Your task to perform on an android device: change the clock display to analog Image 0: 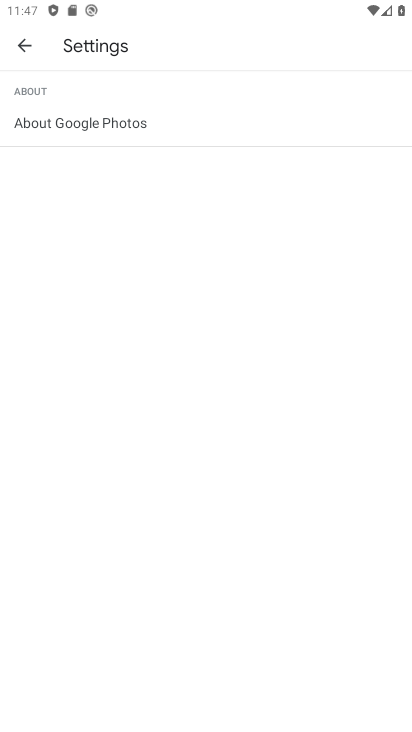
Step 0: press home button
Your task to perform on an android device: change the clock display to analog Image 1: 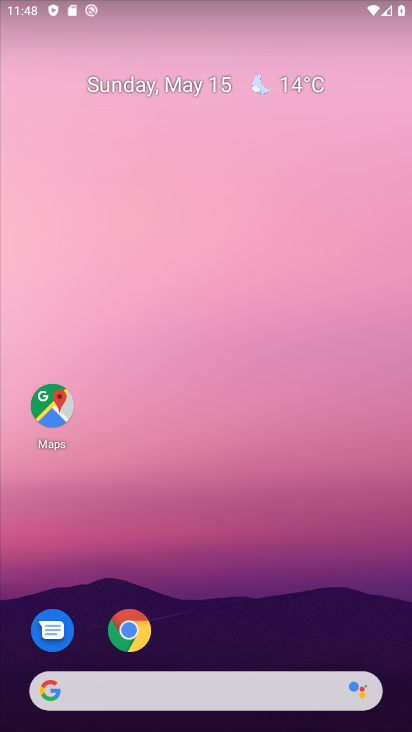
Step 1: drag from (233, 628) to (199, 166)
Your task to perform on an android device: change the clock display to analog Image 2: 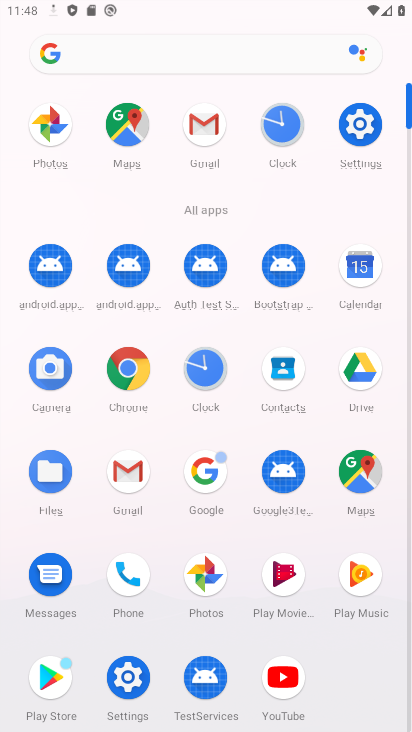
Step 2: click (280, 130)
Your task to perform on an android device: change the clock display to analog Image 3: 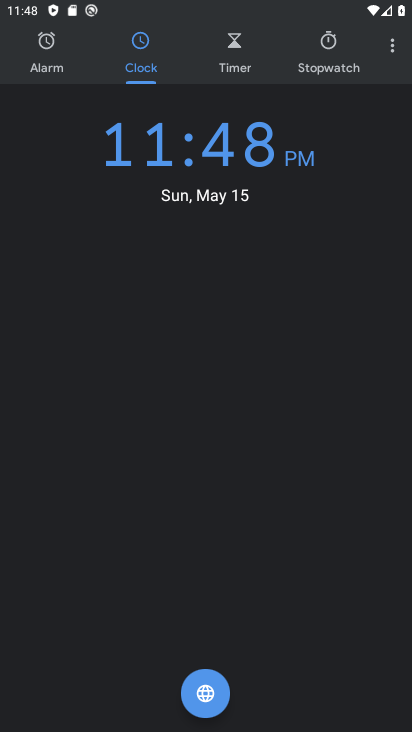
Step 3: click (385, 43)
Your task to perform on an android device: change the clock display to analog Image 4: 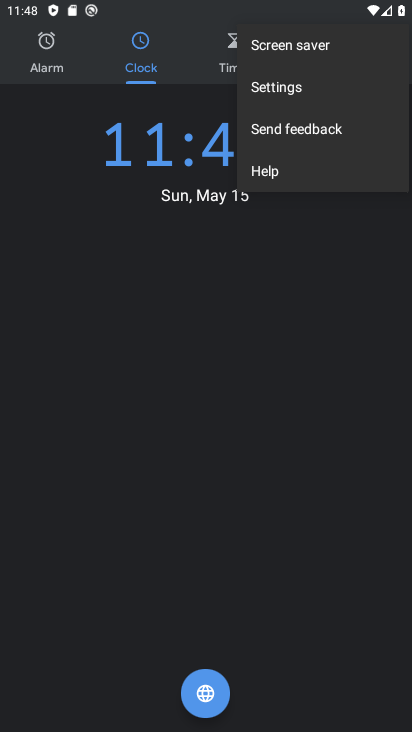
Step 4: click (323, 87)
Your task to perform on an android device: change the clock display to analog Image 5: 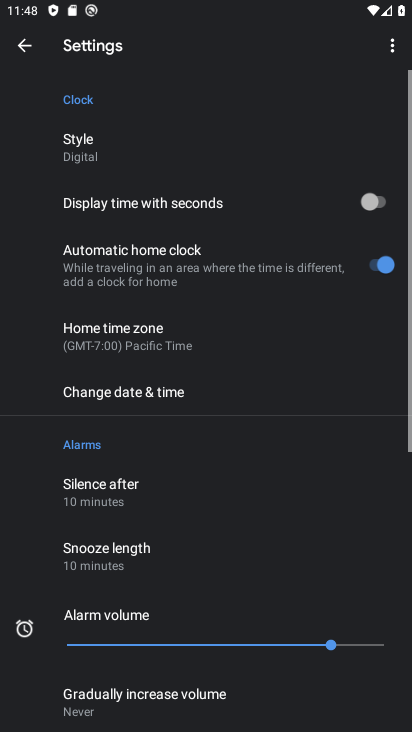
Step 5: click (323, 87)
Your task to perform on an android device: change the clock display to analog Image 6: 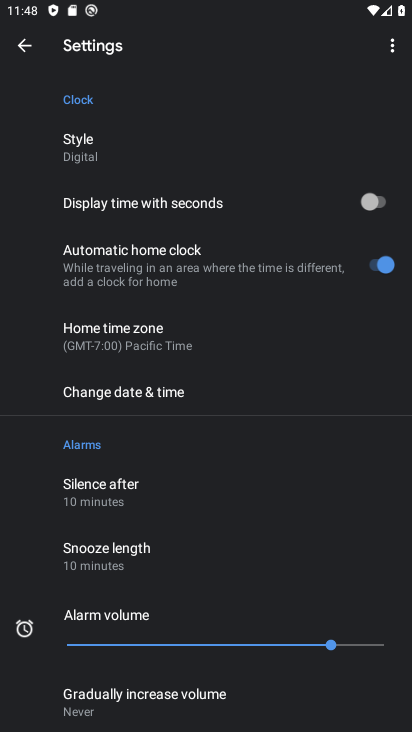
Step 6: click (212, 151)
Your task to perform on an android device: change the clock display to analog Image 7: 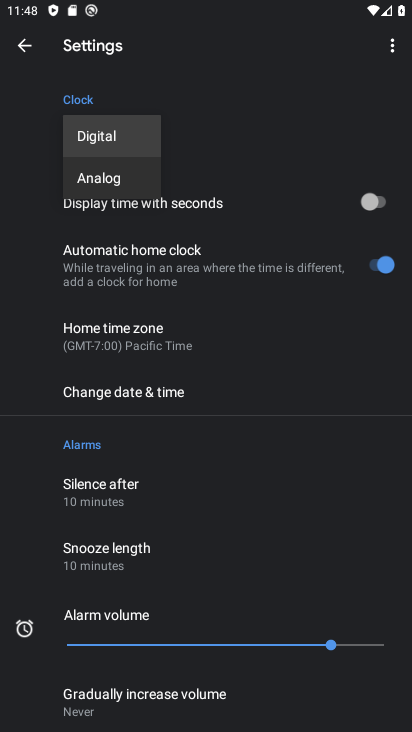
Step 7: click (120, 180)
Your task to perform on an android device: change the clock display to analog Image 8: 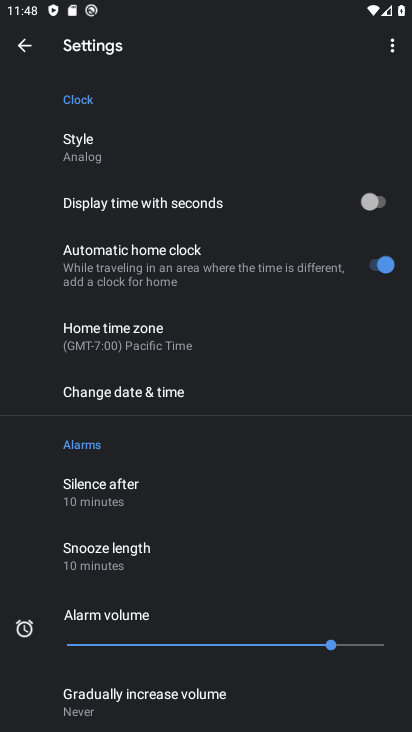
Step 8: task complete